Your task to perform on an android device: Open calendar and show me the fourth week of next month Image 0: 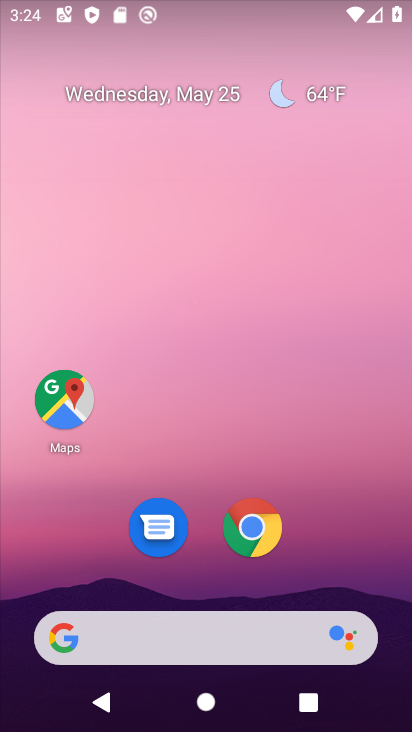
Step 0: drag from (178, 570) to (193, 65)
Your task to perform on an android device: Open calendar and show me the fourth week of next month Image 1: 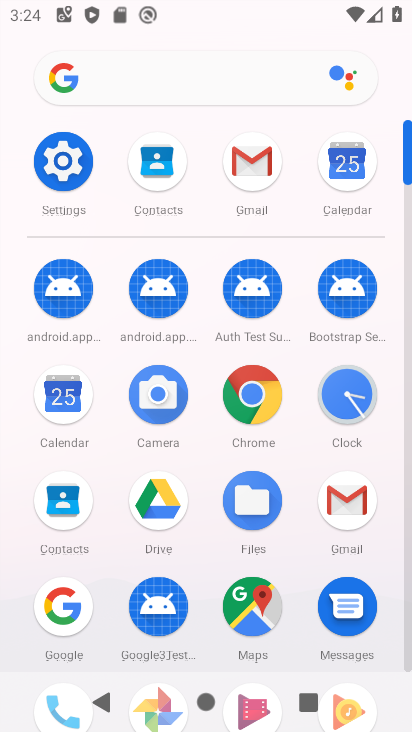
Step 1: click (348, 154)
Your task to perform on an android device: Open calendar and show me the fourth week of next month Image 2: 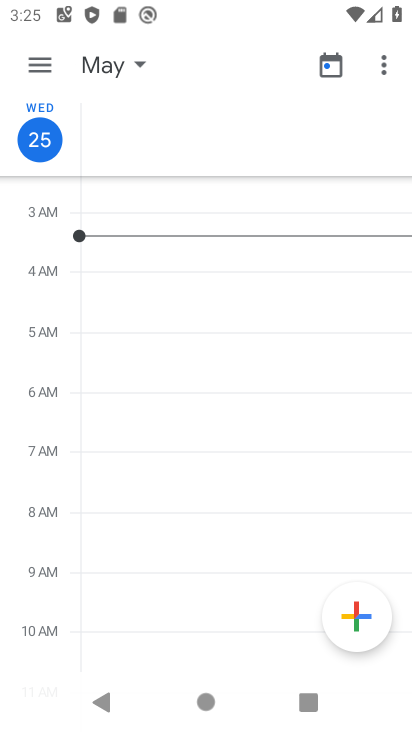
Step 2: click (108, 66)
Your task to perform on an android device: Open calendar and show me the fourth week of next month Image 3: 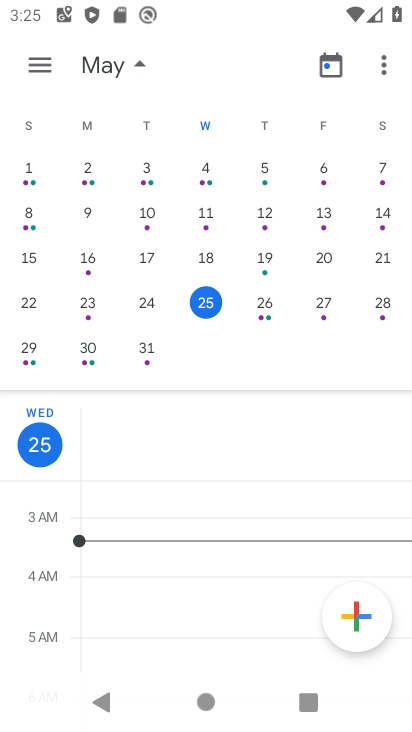
Step 3: drag from (381, 252) to (18, 197)
Your task to perform on an android device: Open calendar and show me the fourth week of next month Image 4: 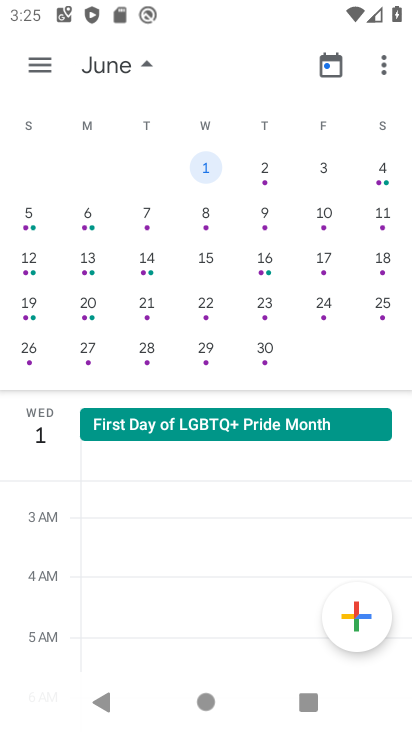
Step 4: click (86, 298)
Your task to perform on an android device: Open calendar and show me the fourth week of next month Image 5: 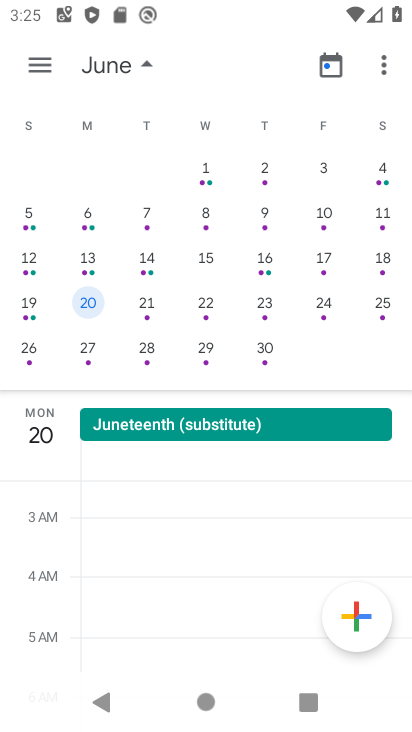
Step 5: task complete